Your task to perform on an android device: open the mobile data screen to see how much data has been used Image 0: 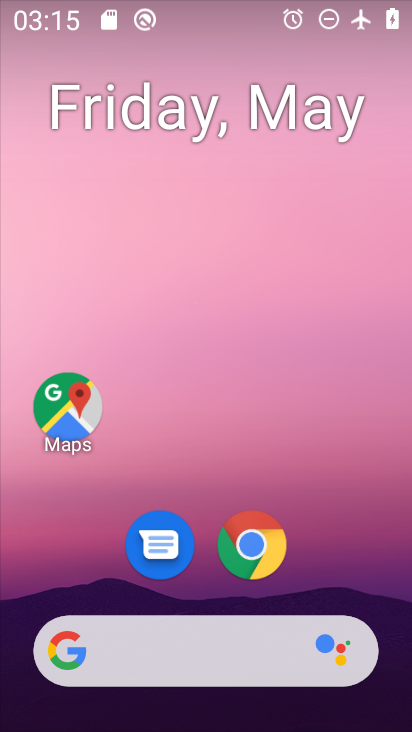
Step 0: drag from (346, 564) to (334, 214)
Your task to perform on an android device: open the mobile data screen to see how much data has been used Image 1: 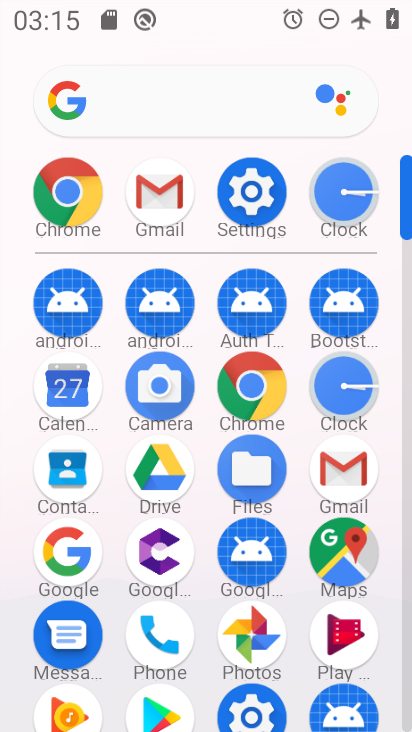
Step 1: click (236, 178)
Your task to perform on an android device: open the mobile data screen to see how much data has been used Image 2: 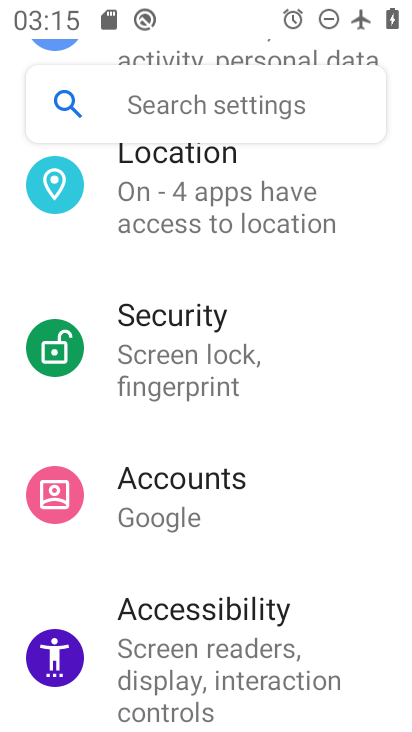
Step 2: drag from (226, 249) to (224, 689)
Your task to perform on an android device: open the mobile data screen to see how much data has been used Image 3: 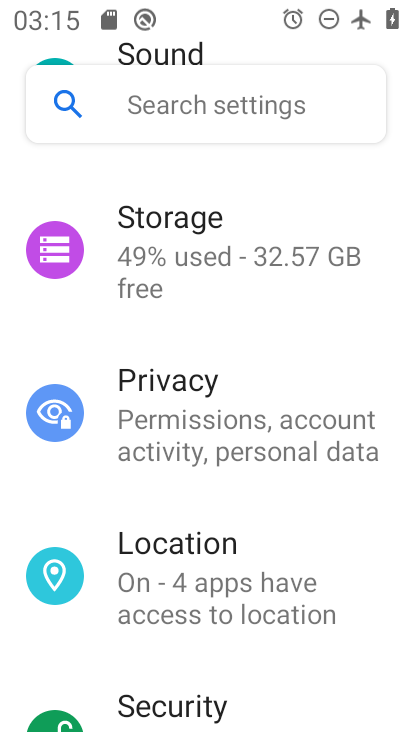
Step 3: drag from (217, 282) to (232, 638)
Your task to perform on an android device: open the mobile data screen to see how much data has been used Image 4: 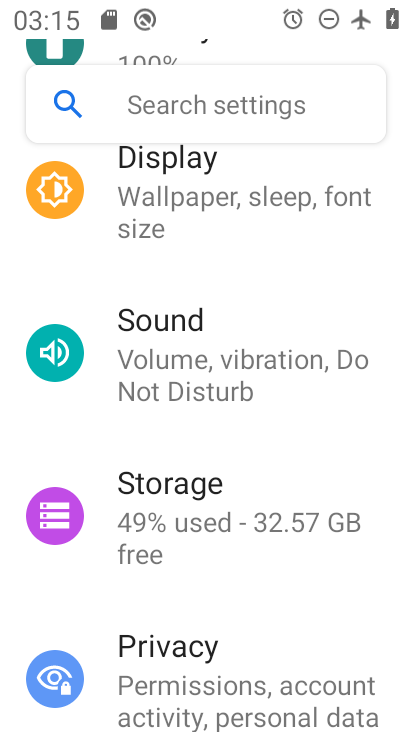
Step 4: drag from (209, 240) to (241, 668)
Your task to perform on an android device: open the mobile data screen to see how much data has been used Image 5: 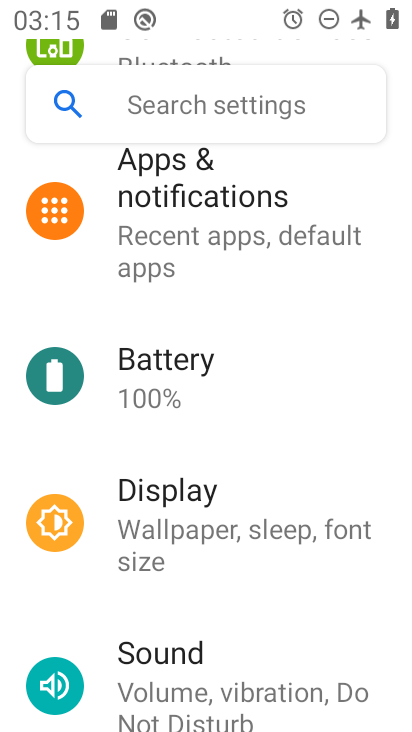
Step 5: drag from (238, 326) to (278, 656)
Your task to perform on an android device: open the mobile data screen to see how much data has been used Image 6: 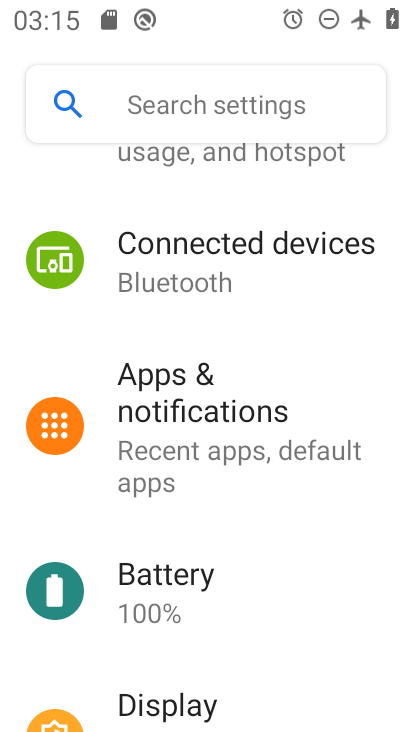
Step 6: drag from (212, 227) to (265, 617)
Your task to perform on an android device: open the mobile data screen to see how much data has been used Image 7: 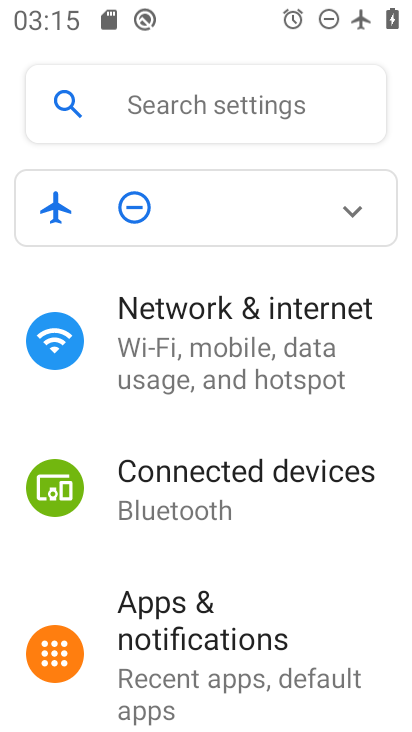
Step 7: click (217, 369)
Your task to perform on an android device: open the mobile data screen to see how much data has been used Image 8: 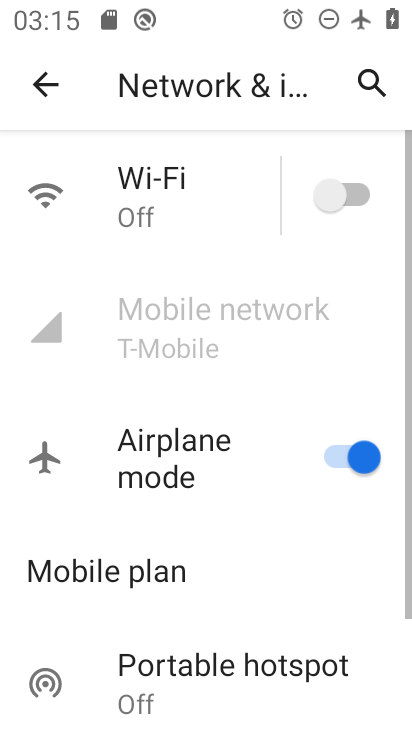
Step 8: click (198, 318)
Your task to perform on an android device: open the mobile data screen to see how much data has been used Image 9: 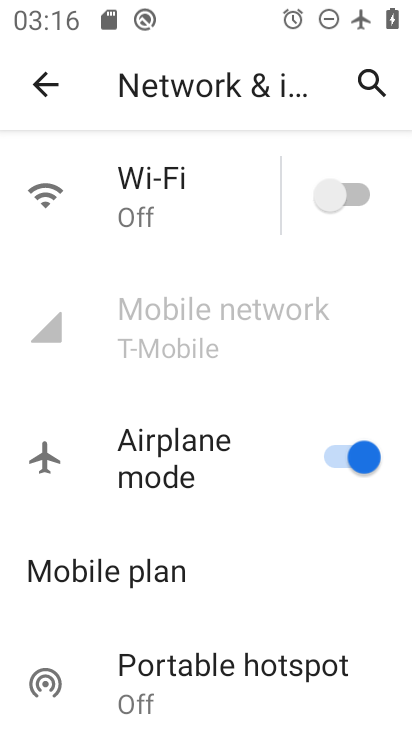
Step 9: task complete